Your task to perform on an android device: What's the news in Pakistan? Image 0: 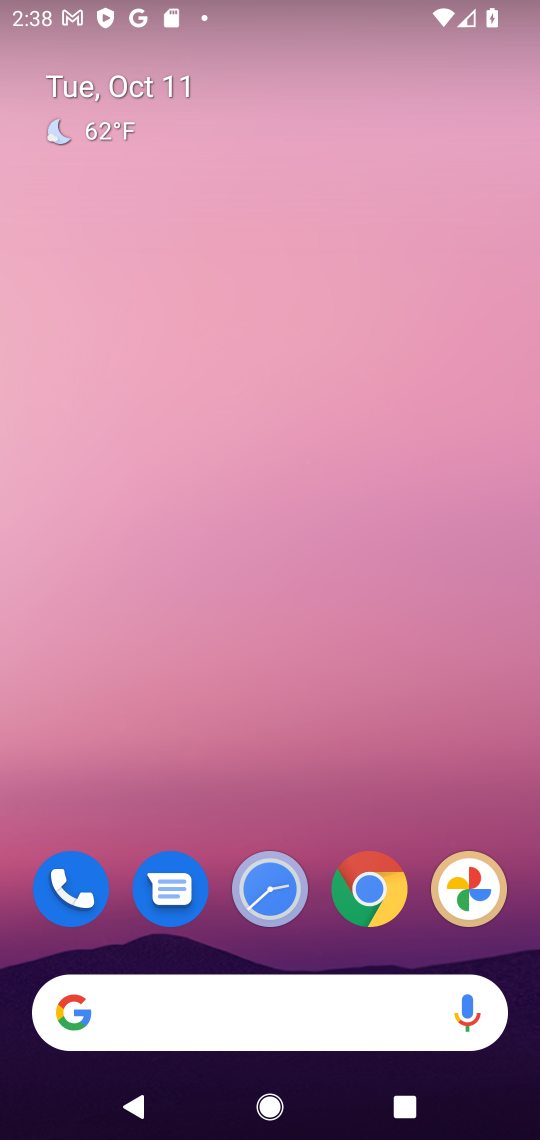
Step 0: drag from (338, 999) to (321, 252)
Your task to perform on an android device: What's the news in Pakistan? Image 1: 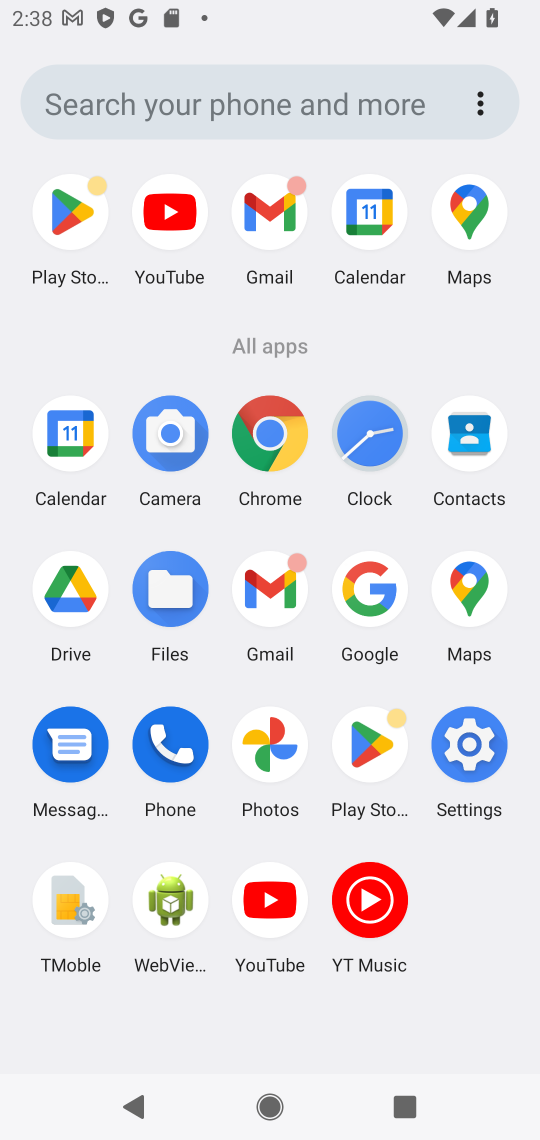
Step 1: click (354, 574)
Your task to perform on an android device: What's the news in Pakistan? Image 2: 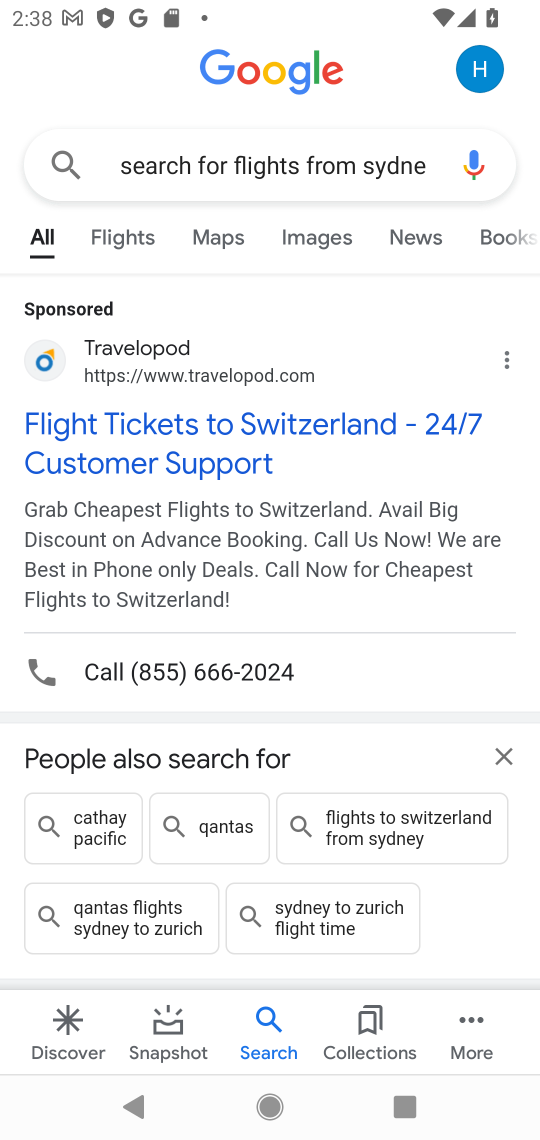
Step 2: click (272, 162)
Your task to perform on an android device: What's the news in Pakistan? Image 3: 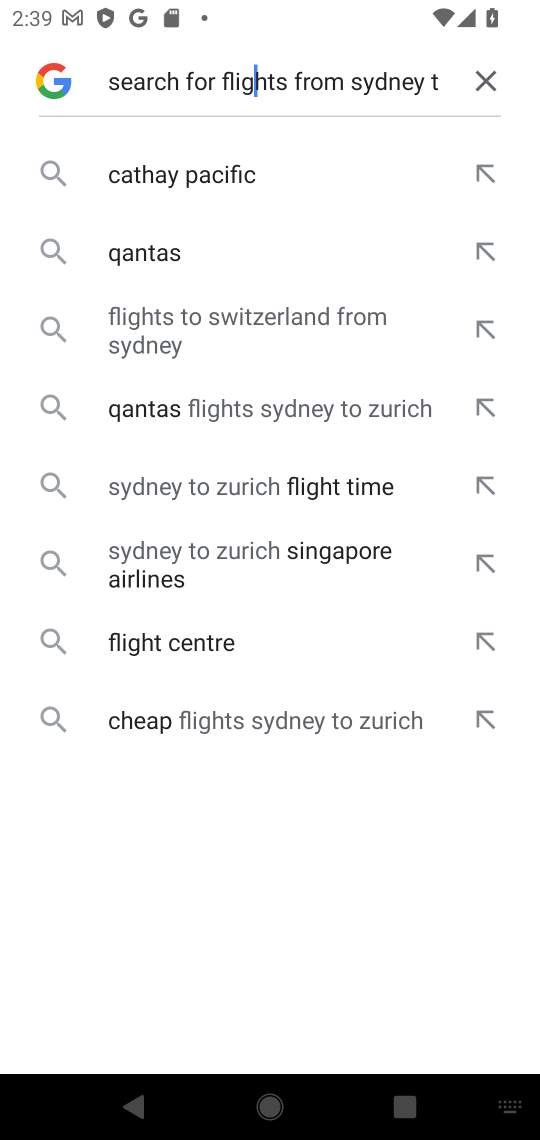
Step 3: click (487, 74)
Your task to perform on an android device: What's the news in Pakistan? Image 4: 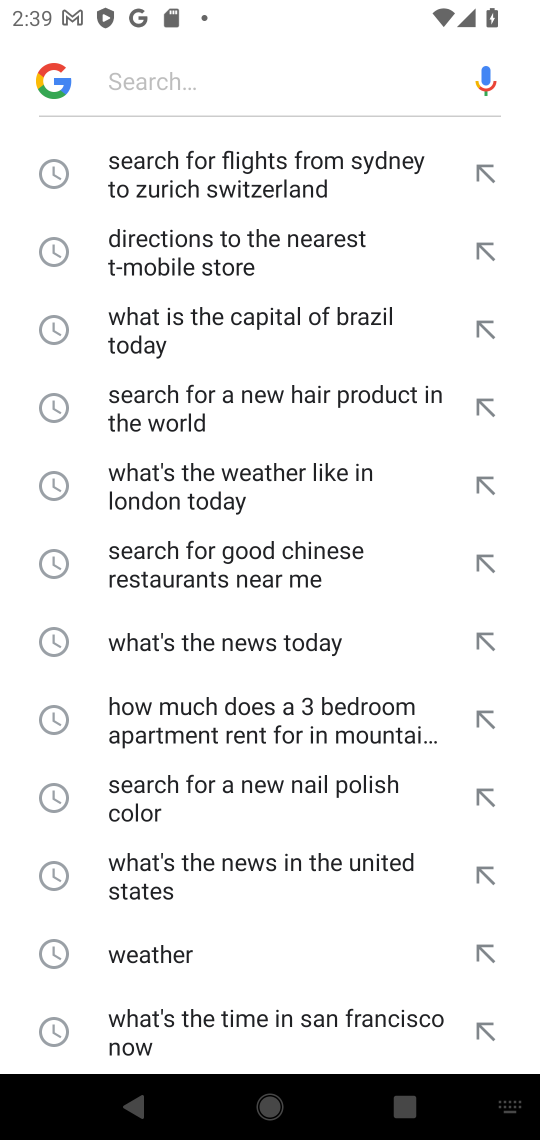
Step 4: click (255, 67)
Your task to perform on an android device: What's the news in Pakistan? Image 5: 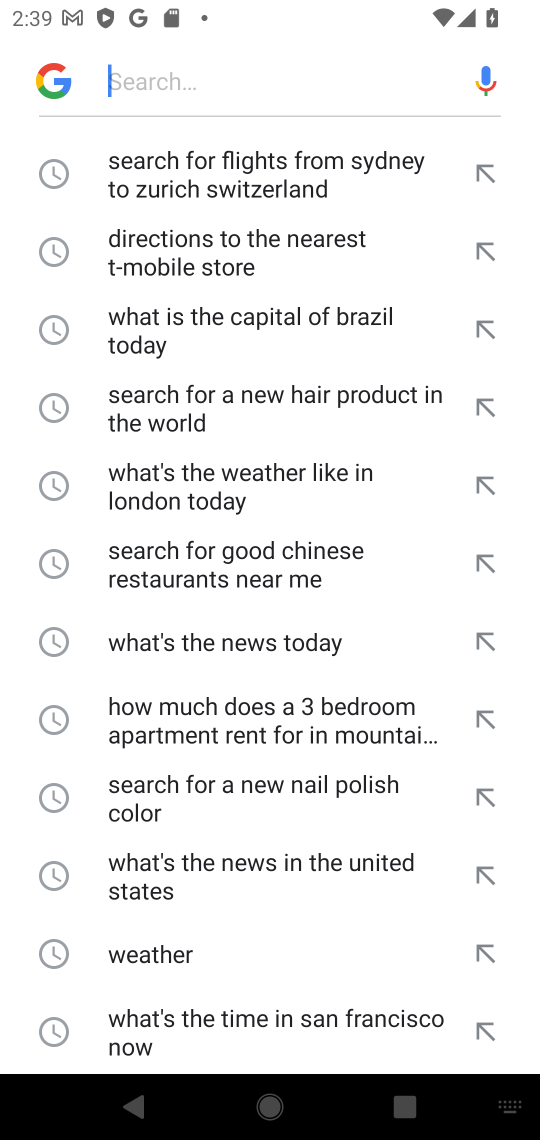
Step 5: type "What's the news in Pakistan? "
Your task to perform on an android device: What's the news in Pakistan? Image 6: 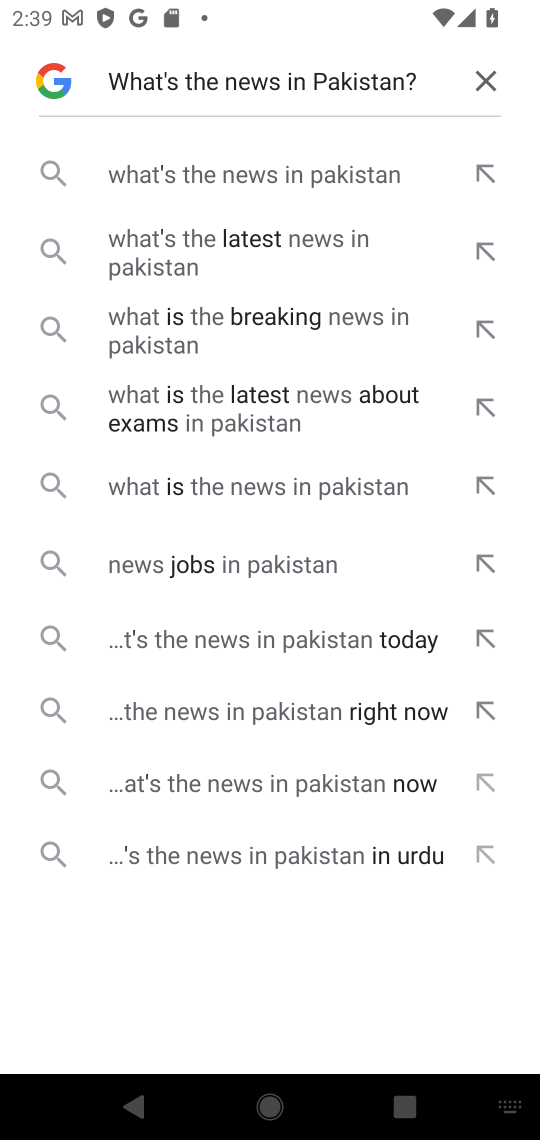
Step 6: click (217, 161)
Your task to perform on an android device: What's the news in Pakistan? Image 7: 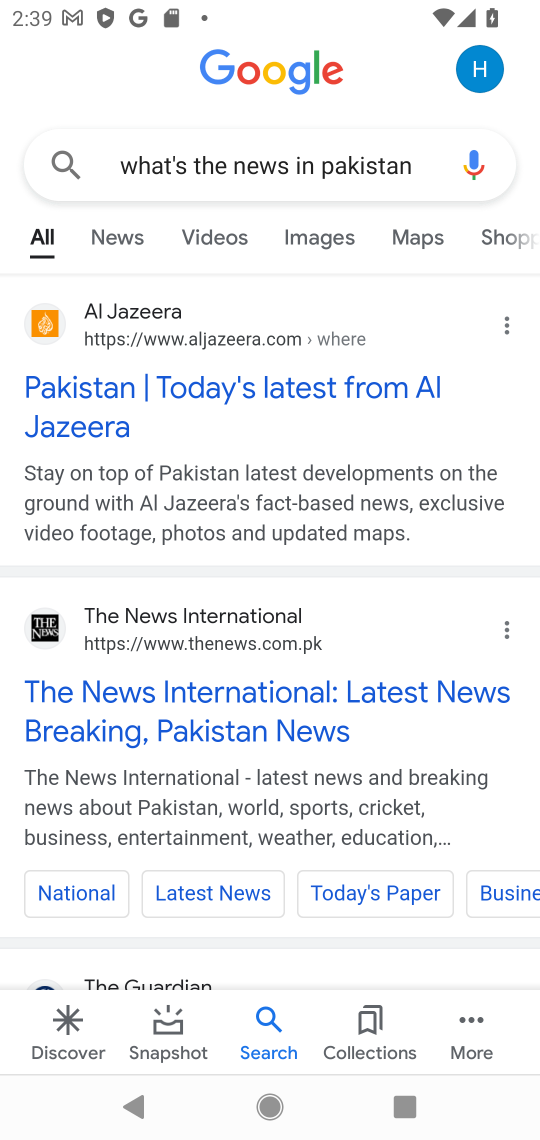
Step 7: click (186, 380)
Your task to perform on an android device: What's the news in Pakistan? Image 8: 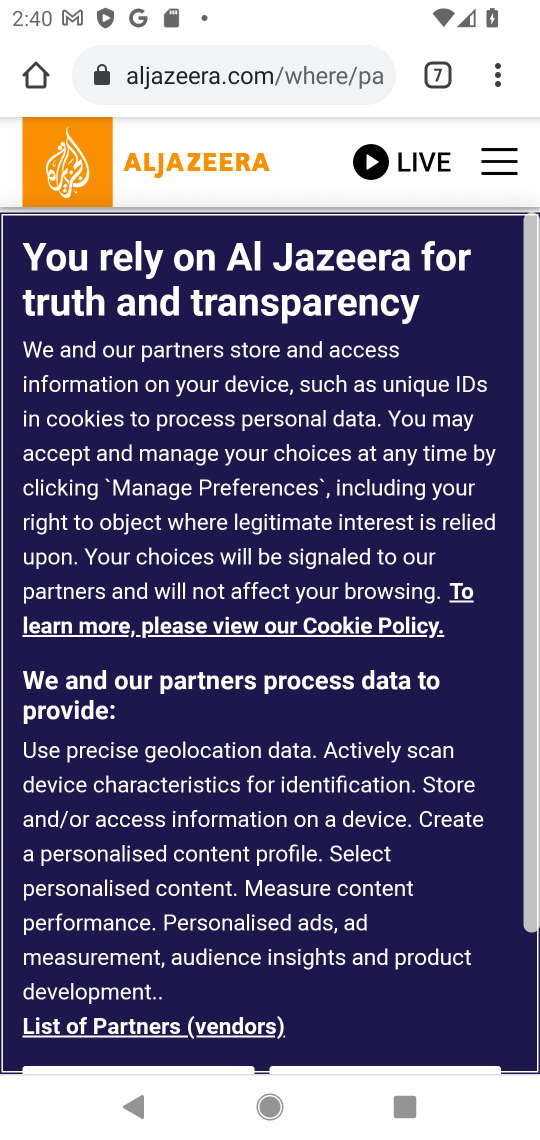
Step 8: drag from (359, 971) to (358, 370)
Your task to perform on an android device: What's the news in Pakistan? Image 9: 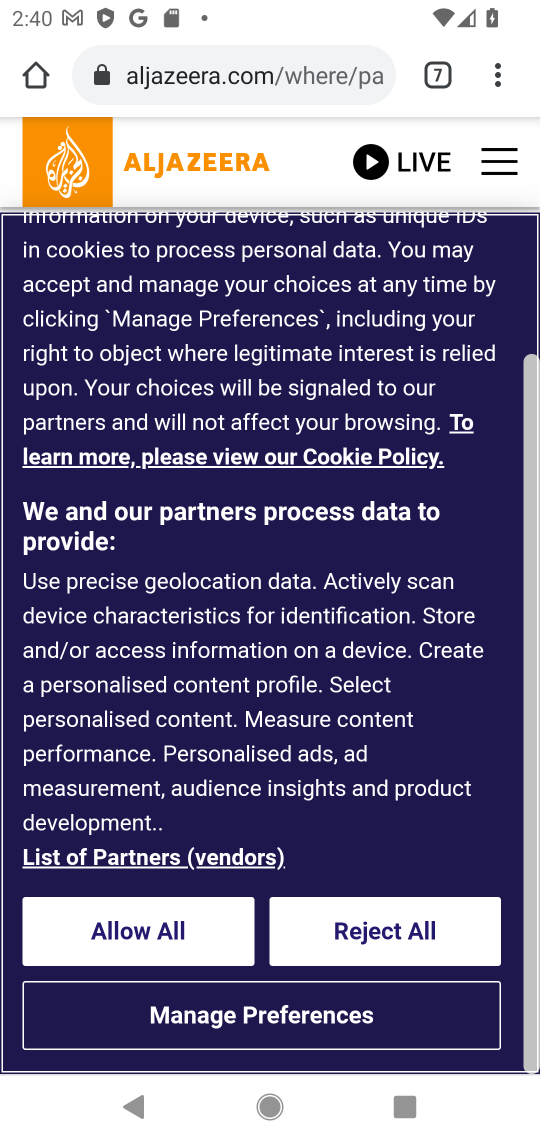
Step 9: click (186, 925)
Your task to perform on an android device: What's the news in Pakistan? Image 10: 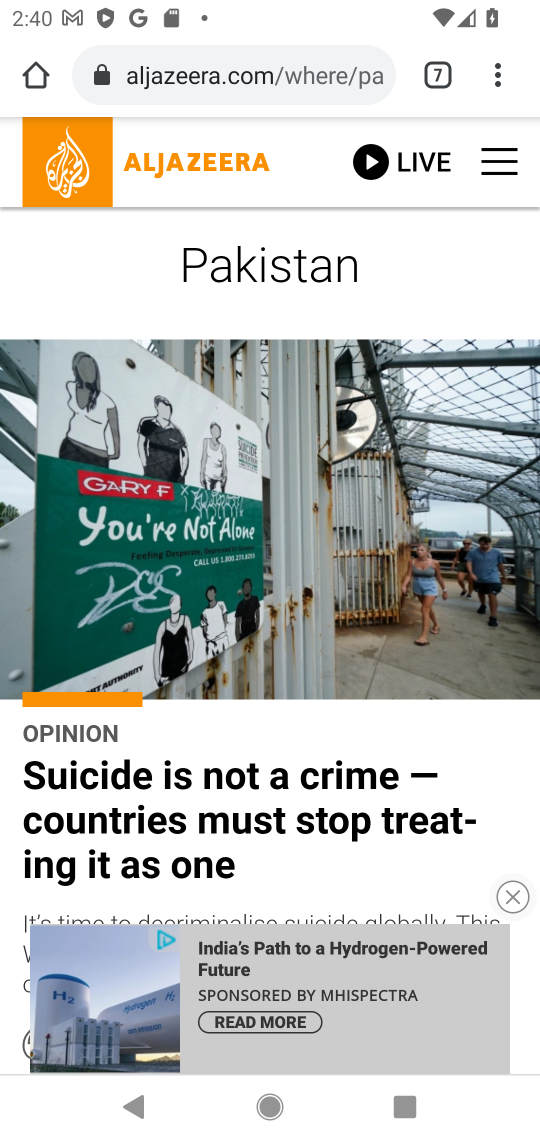
Step 10: drag from (348, 836) to (371, 375)
Your task to perform on an android device: What's the news in Pakistan? Image 11: 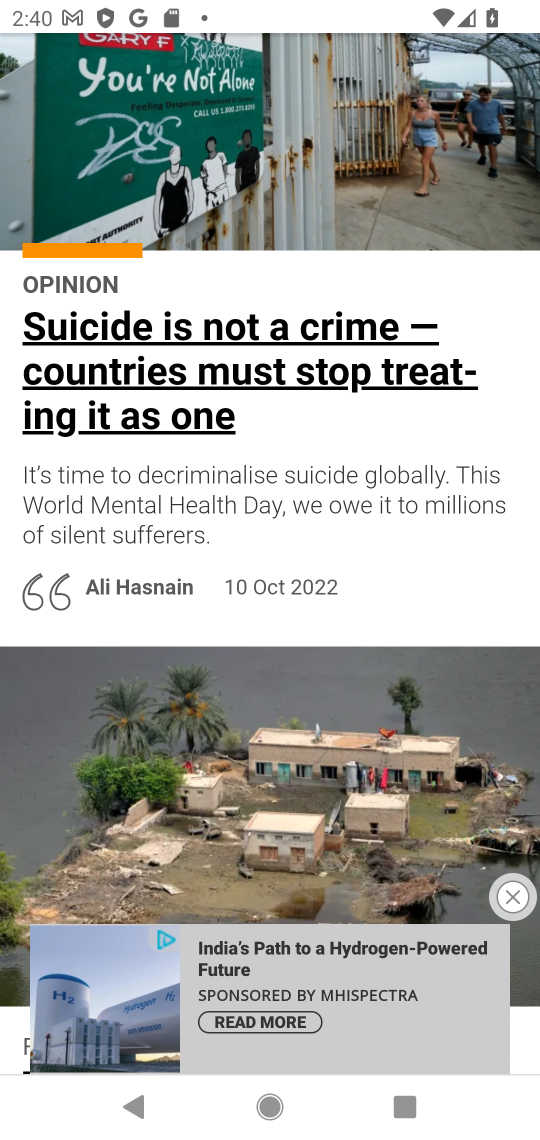
Step 11: click (521, 888)
Your task to perform on an android device: What's the news in Pakistan? Image 12: 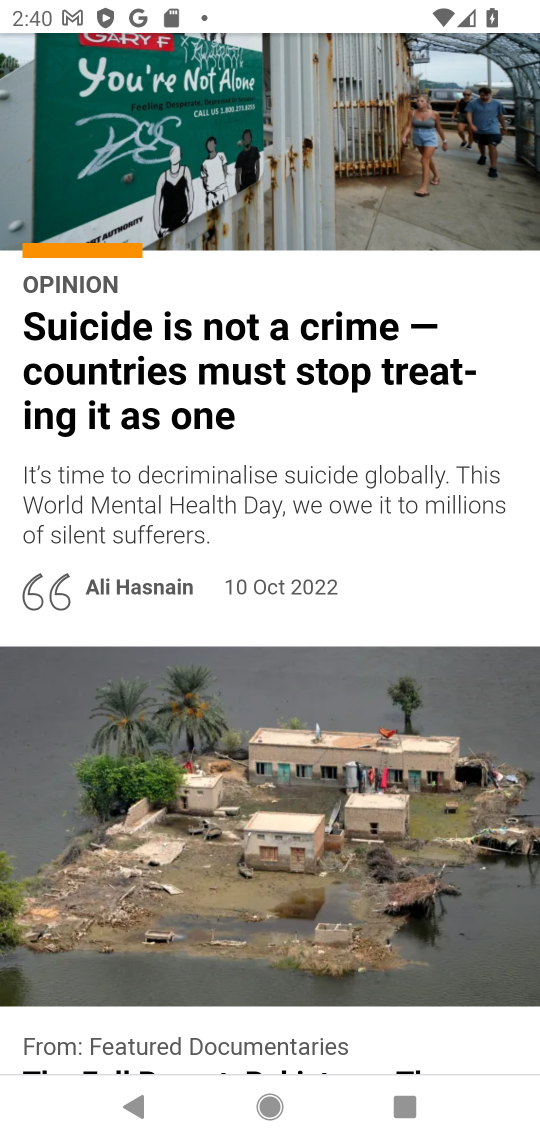
Step 12: task complete